Your task to perform on an android device: Open battery settings Image 0: 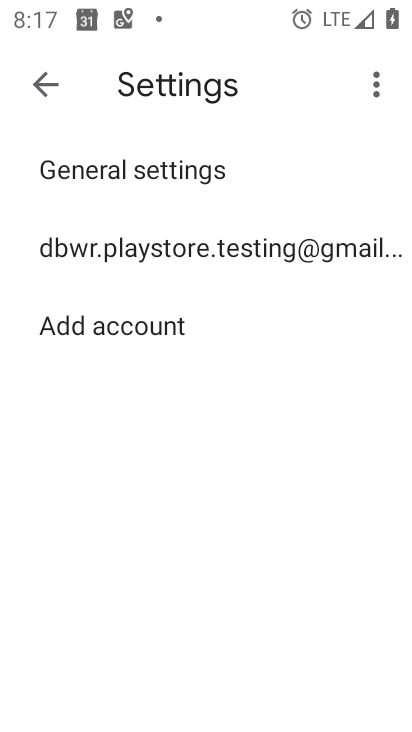
Step 0: drag from (181, 591) to (172, 494)
Your task to perform on an android device: Open battery settings Image 1: 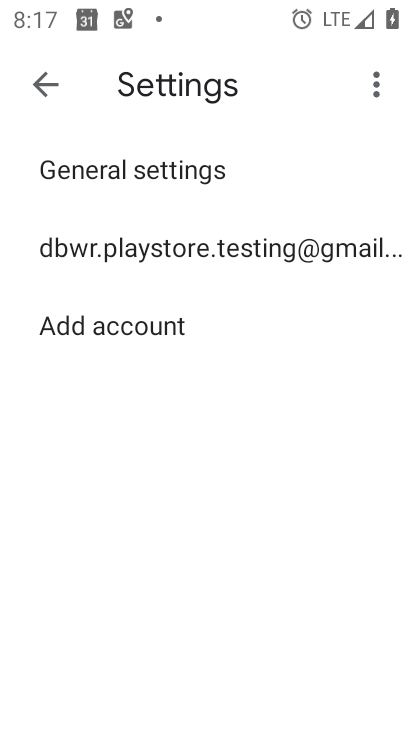
Step 1: press home button
Your task to perform on an android device: Open battery settings Image 2: 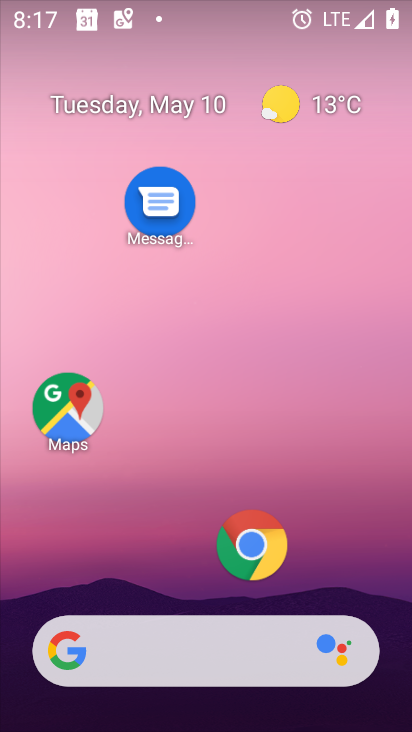
Step 2: drag from (207, 594) to (207, 59)
Your task to perform on an android device: Open battery settings Image 3: 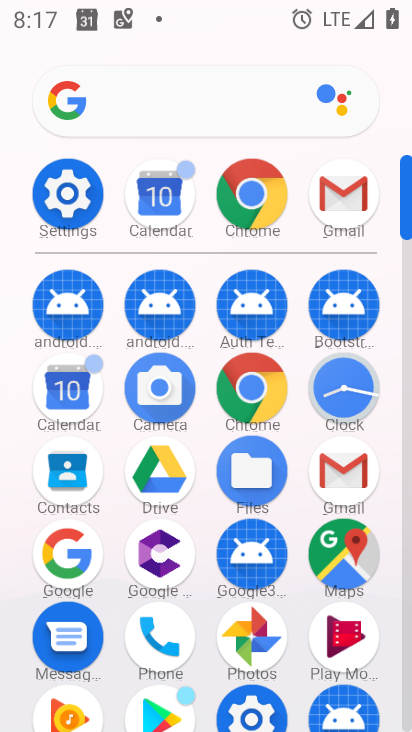
Step 3: click (66, 194)
Your task to perform on an android device: Open battery settings Image 4: 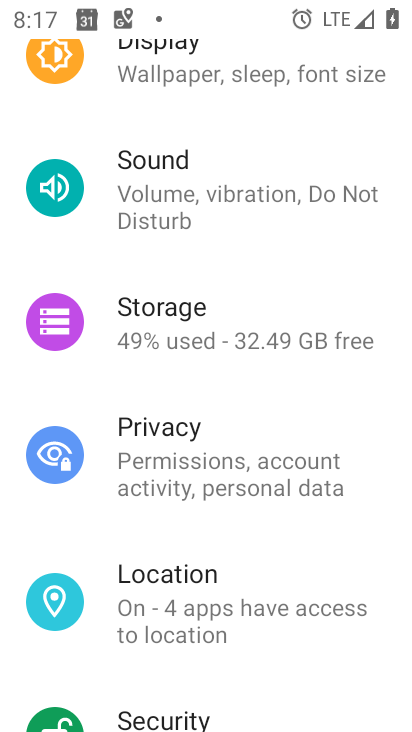
Step 4: drag from (204, 95) to (248, 634)
Your task to perform on an android device: Open battery settings Image 5: 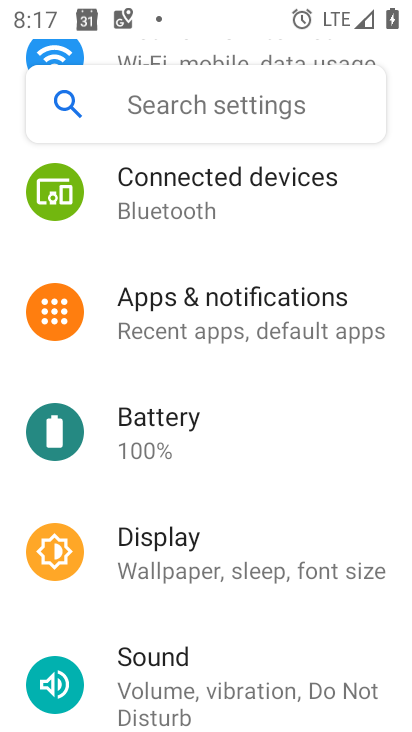
Step 5: click (199, 440)
Your task to perform on an android device: Open battery settings Image 6: 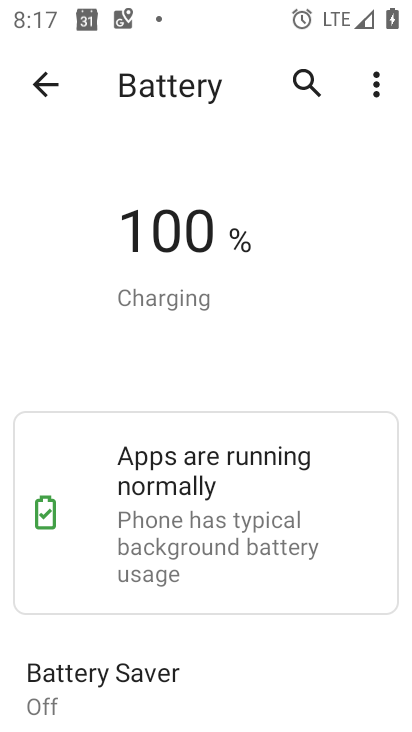
Step 6: task complete